Your task to perform on an android device: check data usage Image 0: 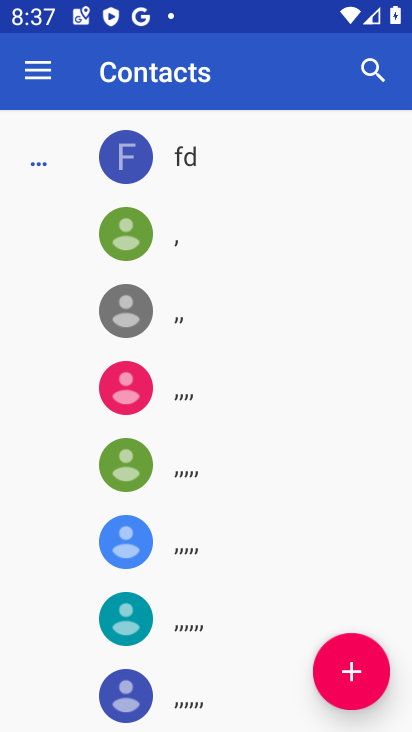
Step 0: press home button
Your task to perform on an android device: check data usage Image 1: 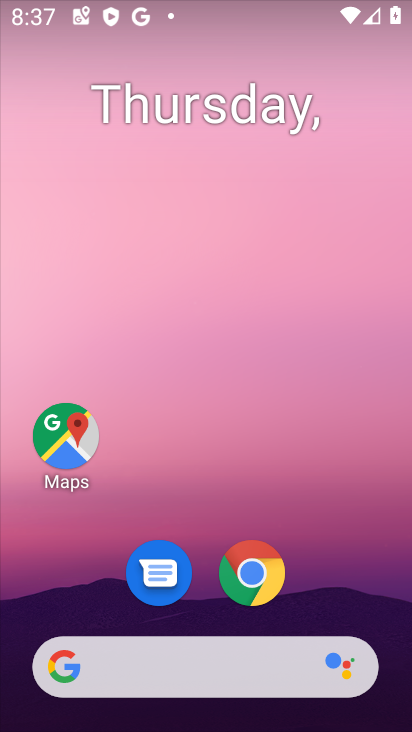
Step 1: drag from (360, 597) to (355, 202)
Your task to perform on an android device: check data usage Image 2: 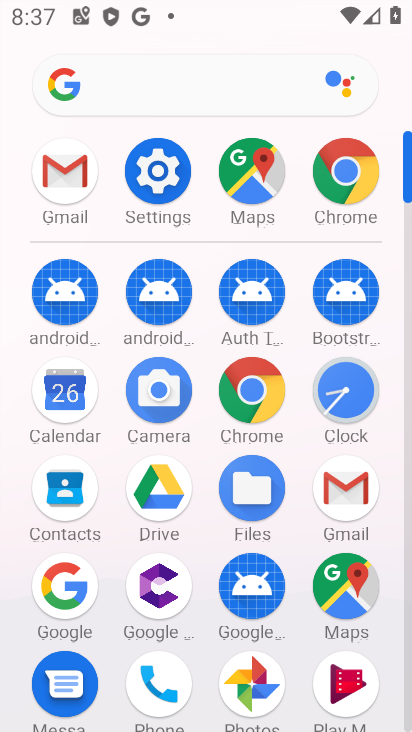
Step 2: click (165, 198)
Your task to perform on an android device: check data usage Image 3: 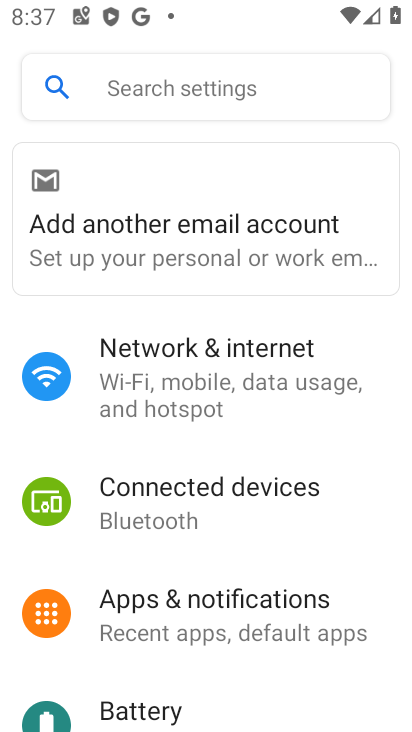
Step 3: click (235, 370)
Your task to perform on an android device: check data usage Image 4: 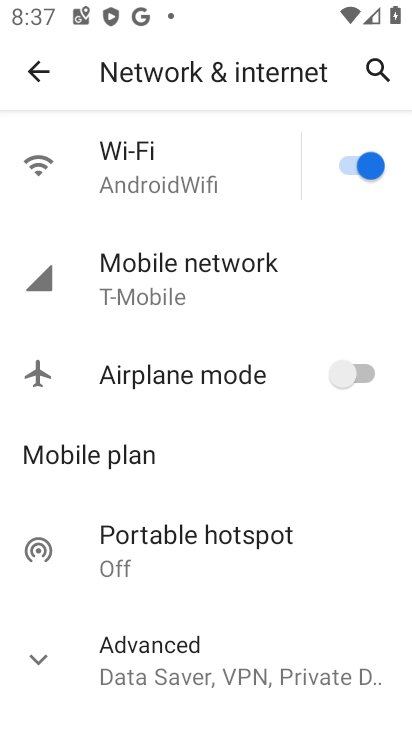
Step 4: click (252, 282)
Your task to perform on an android device: check data usage Image 5: 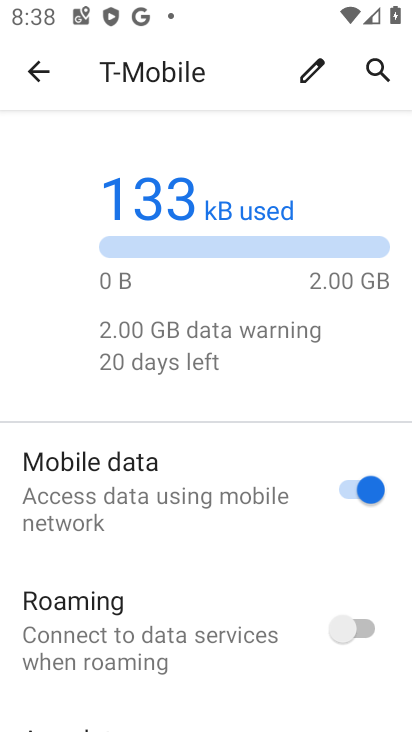
Step 5: task complete